Your task to perform on an android device: change notifications settings Image 0: 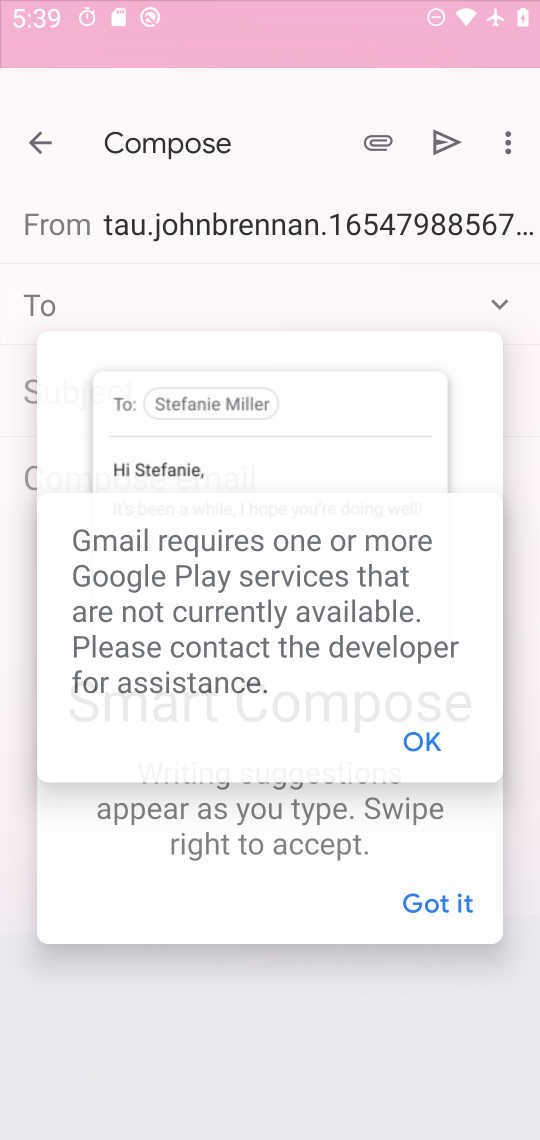
Step 0: press home button
Your task to perform on an android device: change notifications settings Image 1: 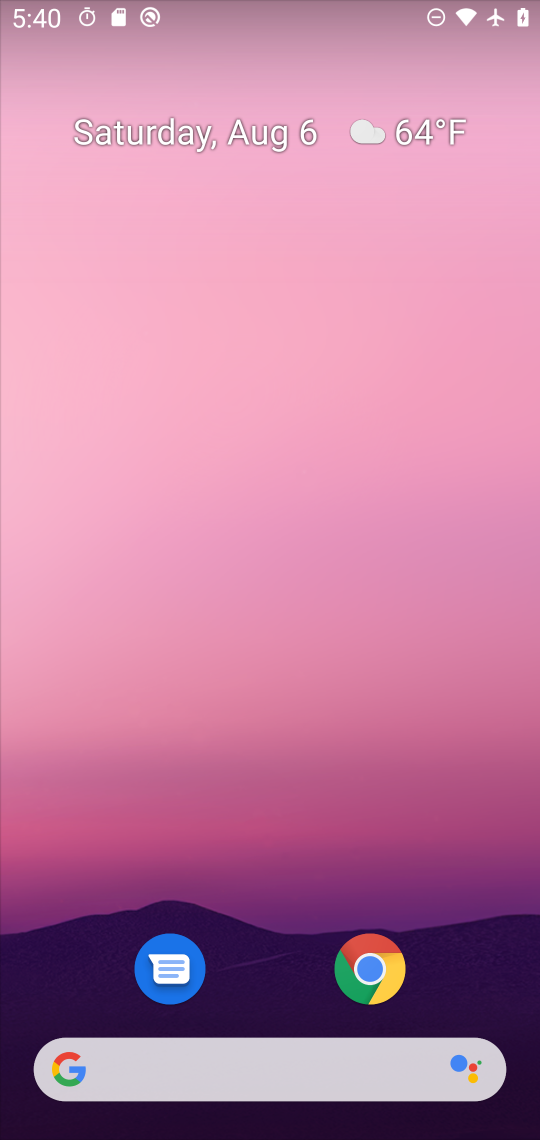
Step 1: drag from (269, 917) to (420, 397)
Your task to perform on an android device: change notifications settings Image 2: 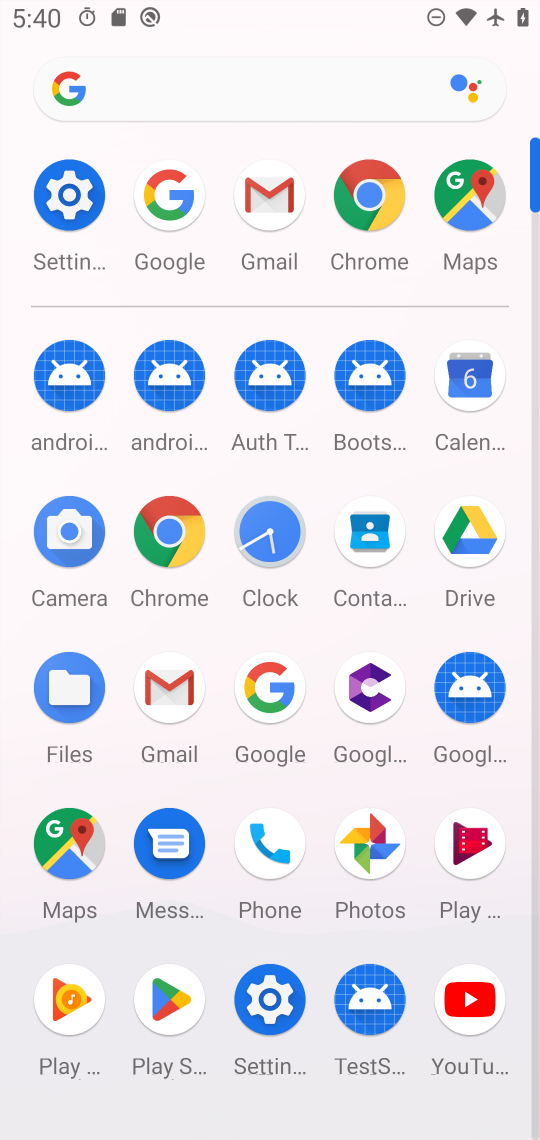
Step 2: click (55, 195)
Your task to perform on an android device: change notifications settings Image 3: 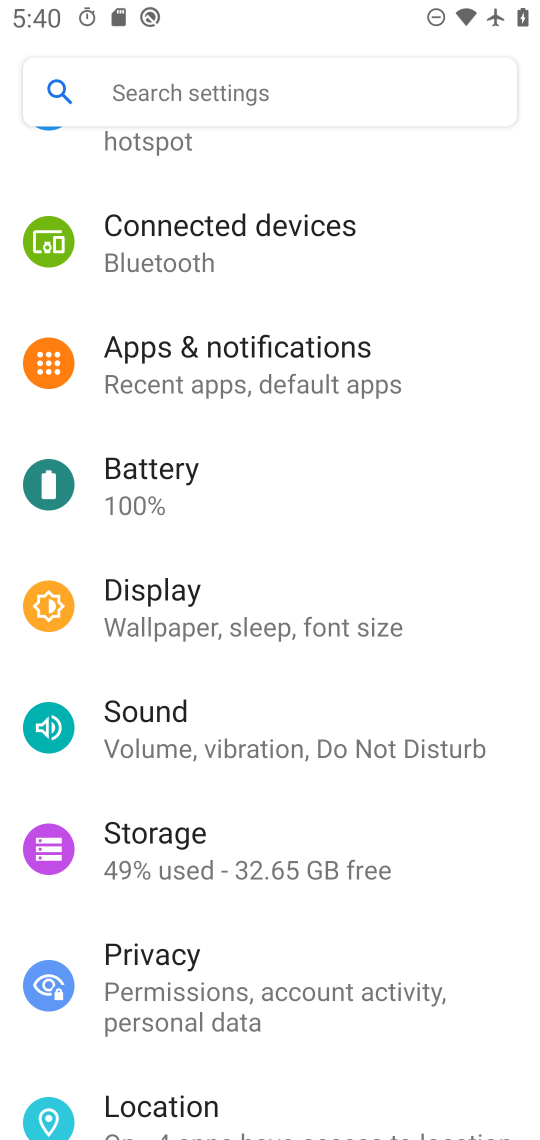
Step 3: click (238, 370)
Your task to perform on an android device: change notifications settings Image 4: 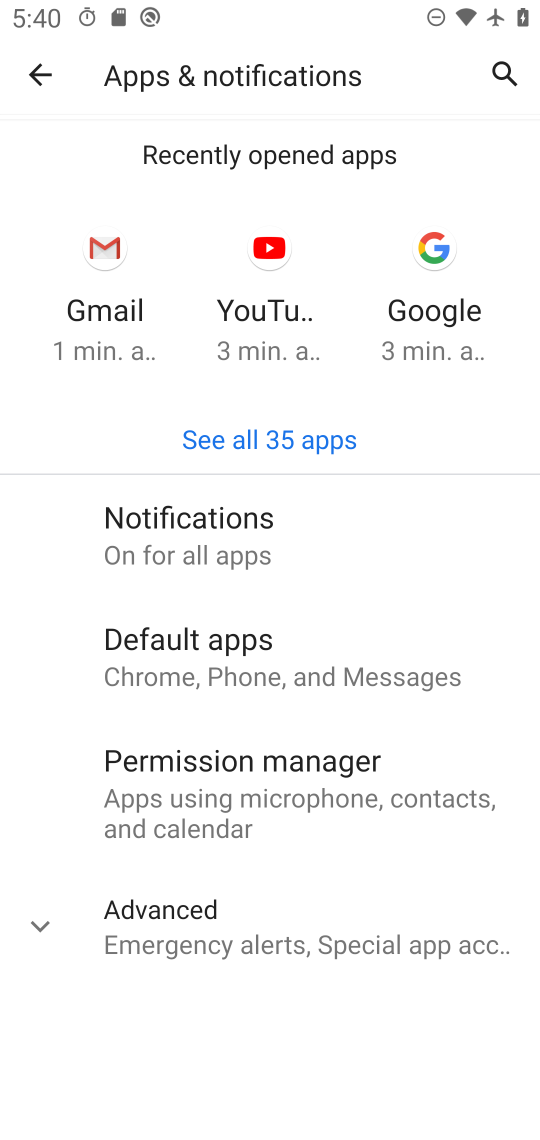
Step 4: click (209, 526)
Your task to perform on an android device: change notifications settings Image 5: 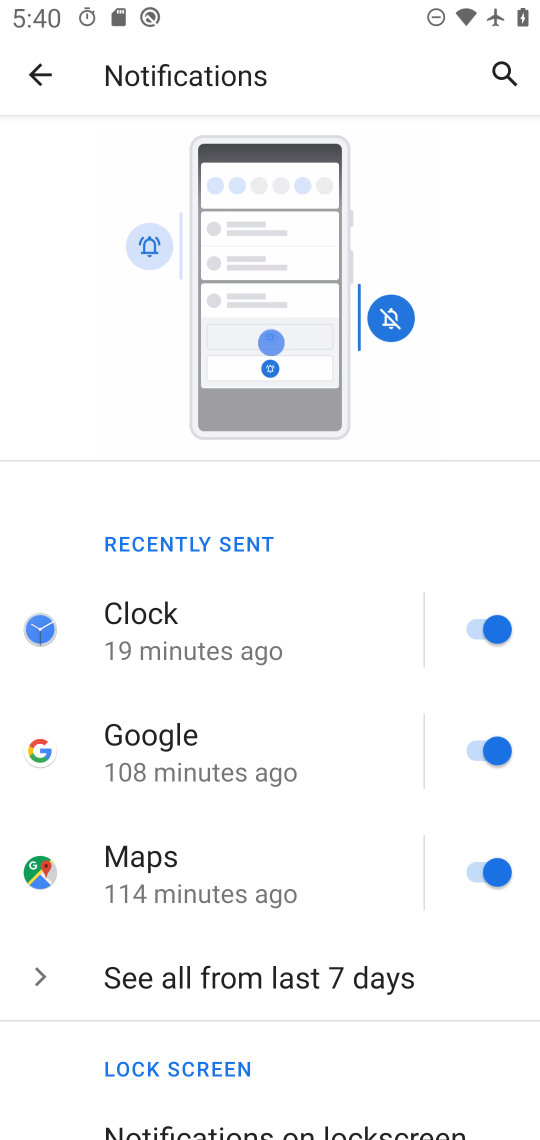
Step 5: drag from (328, 1060) to (316, 442)
Your task to perform on an android device: change notifications settings Image 6: 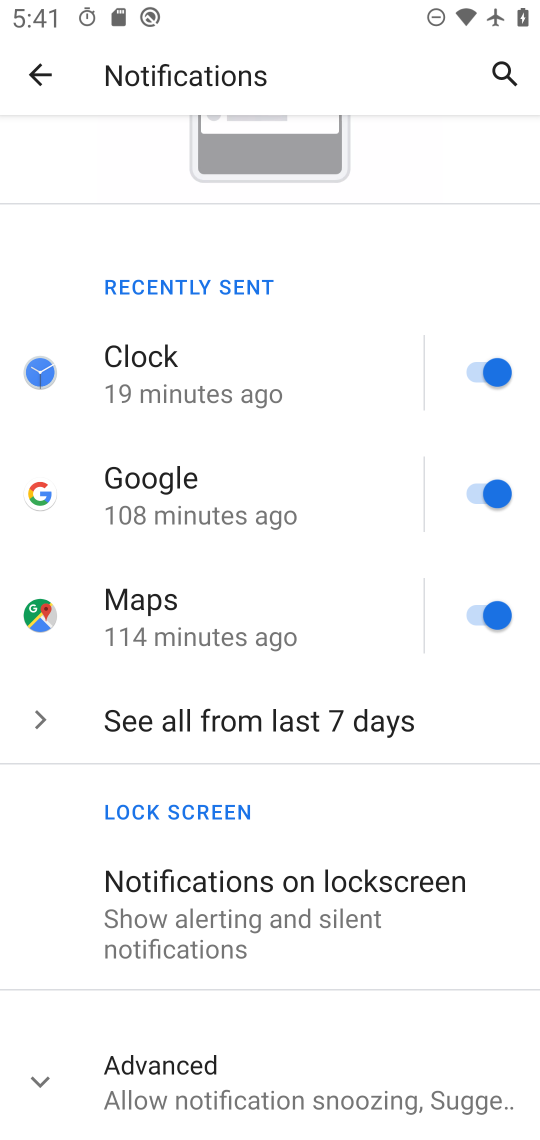
Step 6: click (239, 910)
Your task to perform on an android device: change notifications settings Image 7: 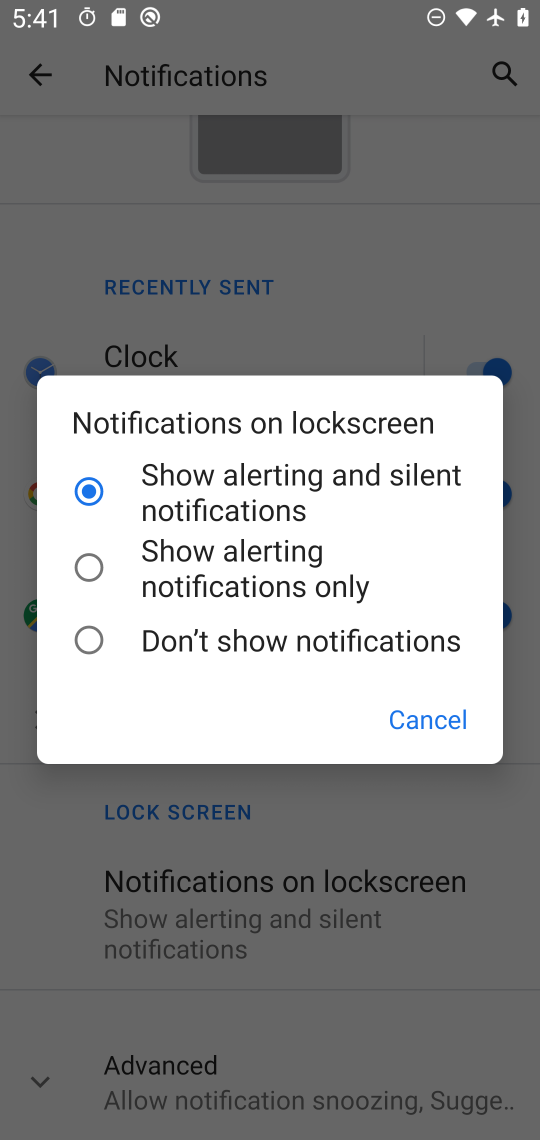
Step 7: click (93, 638)
Your task to perform on an android device: change notifications settings Image 8: 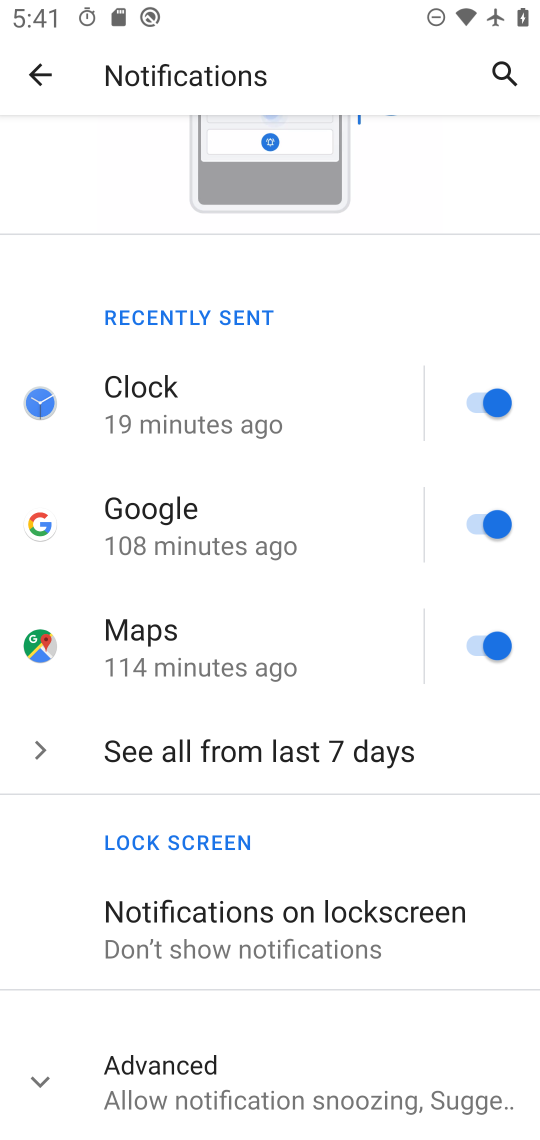
Step 8: task complete